Your task to perform on an android device: show emergency info Image 0: 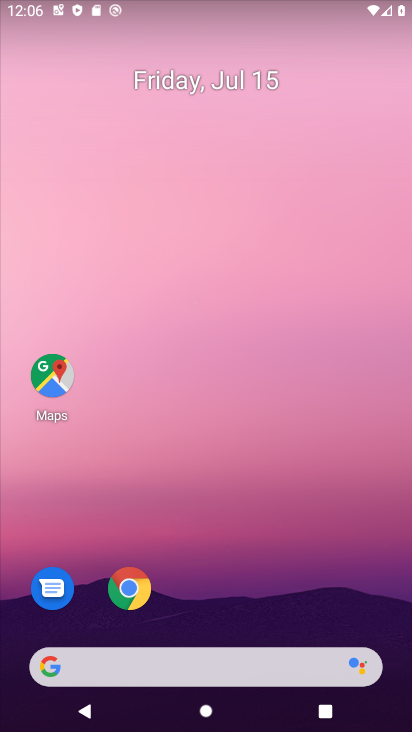
Step 0: drag from (126, 590) to (317, 19)
Your task to perform on an android device: show emergency info Image 1: 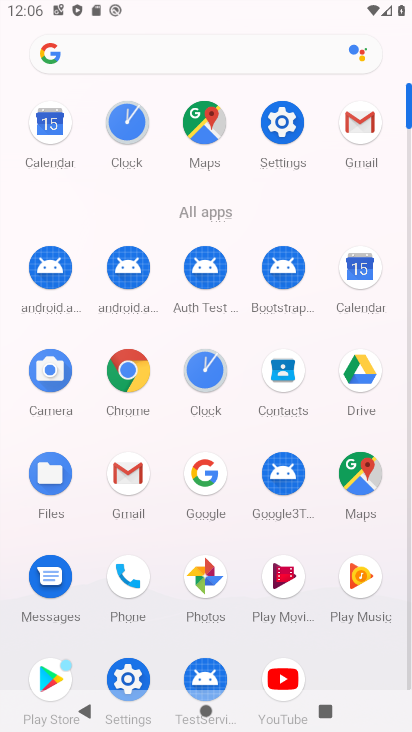
Step 1: click (282, 109)
Your task to perform on an android device: show emergency info Image 2: 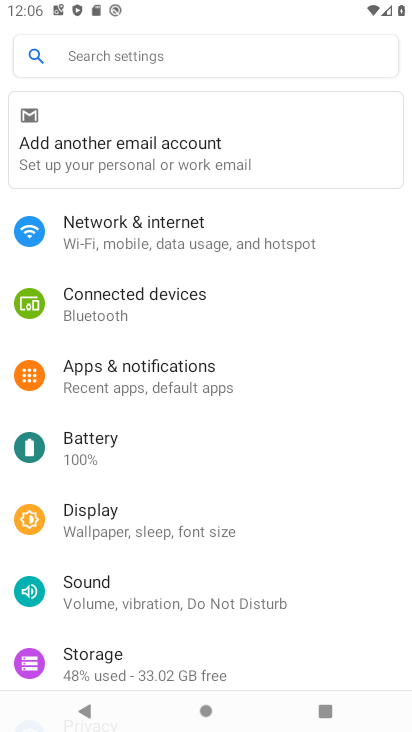
Step 2: drag from (249, 522) to (274, 123)
Your task to perform on an android device: show emergency info Image 3: 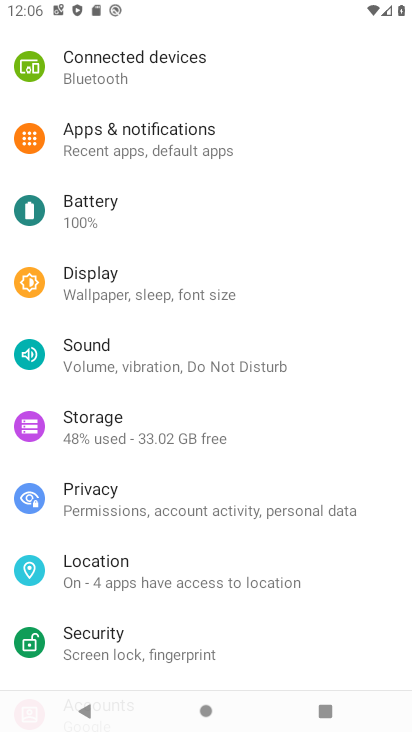
Step 3: drag from (168, 565) to (149, 119)
Your task to perform on an android device: show emergency info Image 4: 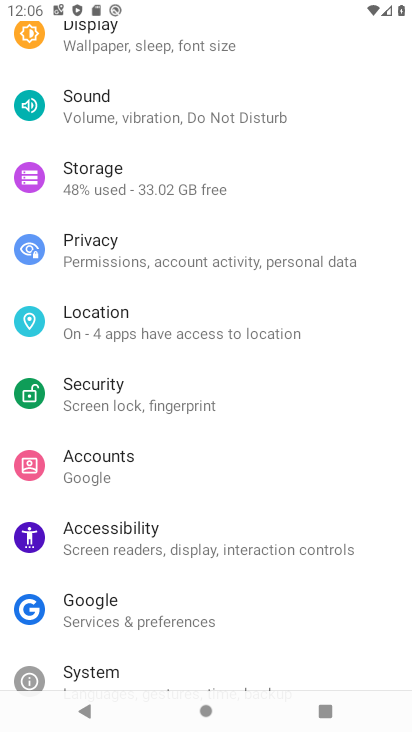
Step 4: drag from (198, 629) to (263, 0)
Your task to perform on an android device: show emergency info Image 5: 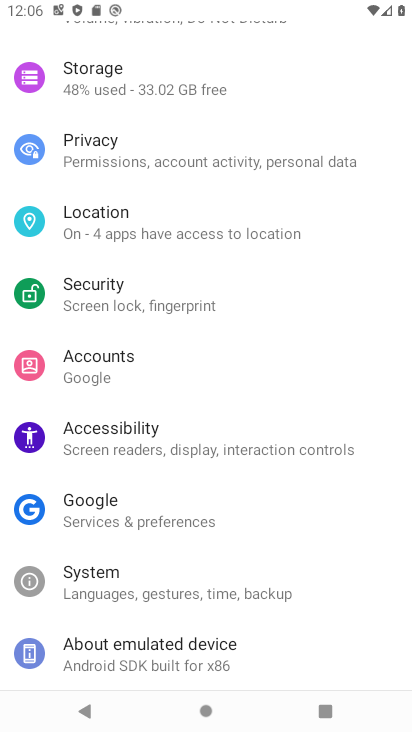
Step 5: click (219, 666)
Your task to perform on an android device: show emergency info Image 6: 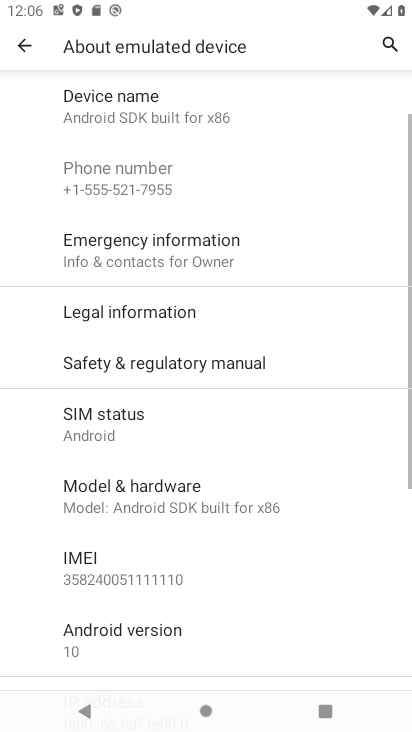
Step 6: click (253, 253)
Your task to perform on an android device: show emergency info Image 7: 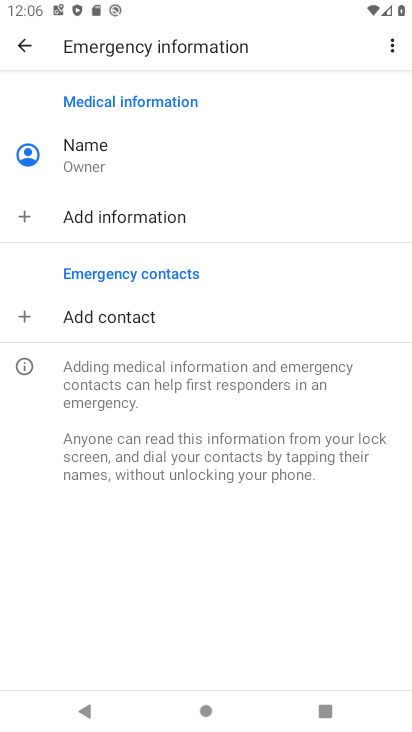
Step 7: task complete